Your task to perform on an android device: Check the weather Image 0: 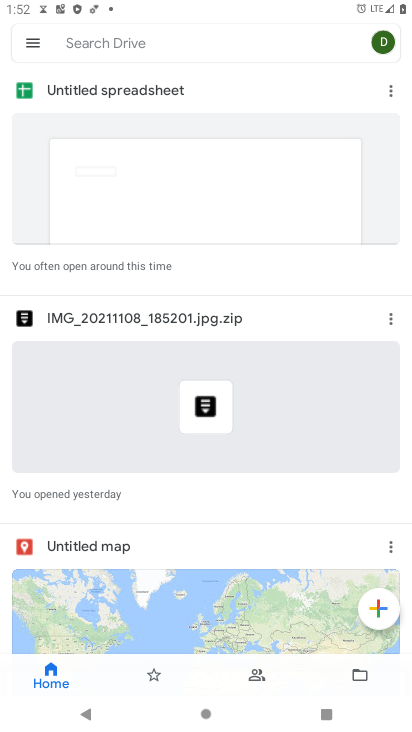
Step 0: press home button
Your task to perform on an android device: Check the weather Image 1: 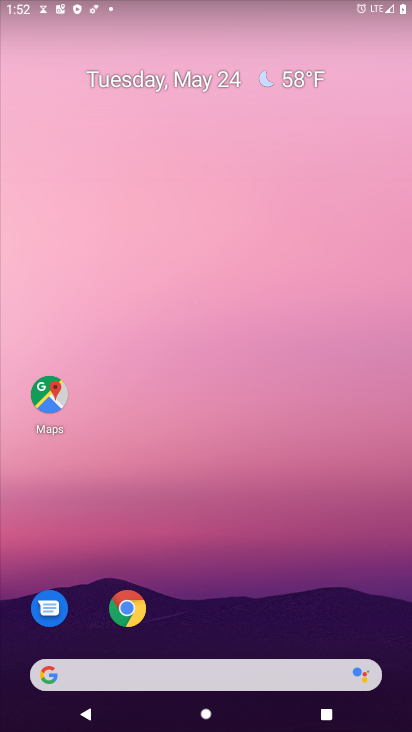
Step 1: drag from (234, 703) to (71, 79)
Your task to perform on an android device: Check the weather Image 2: 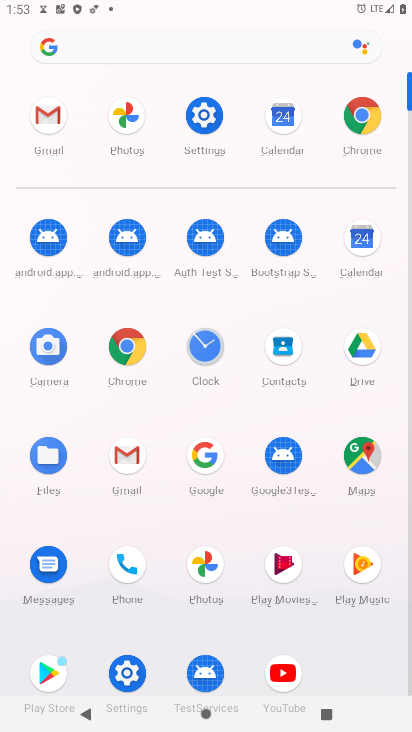
Step 2: click (111, 52)
Your task to perform on an android device: Check the weather Image 3: 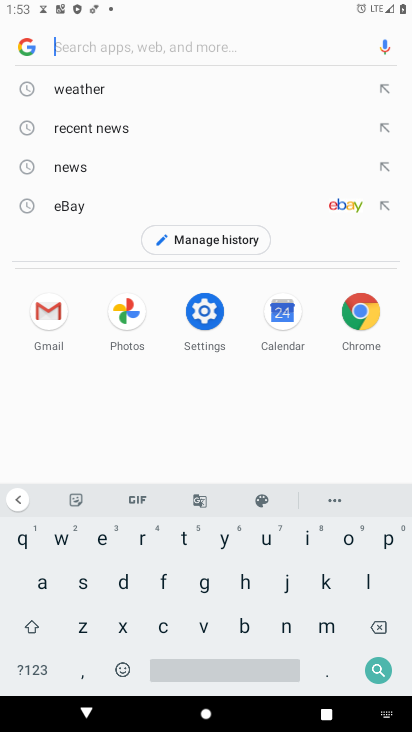
Step 3: click (132, 94)
Your task to perform on an android device: Check the weather Image 4: 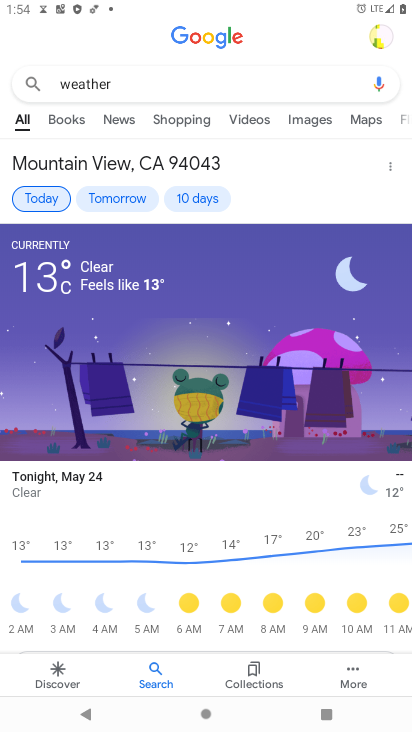
Step 4: task complete